Your task to perform on an android device: Open the calendar and show me this week's events? Image 0: 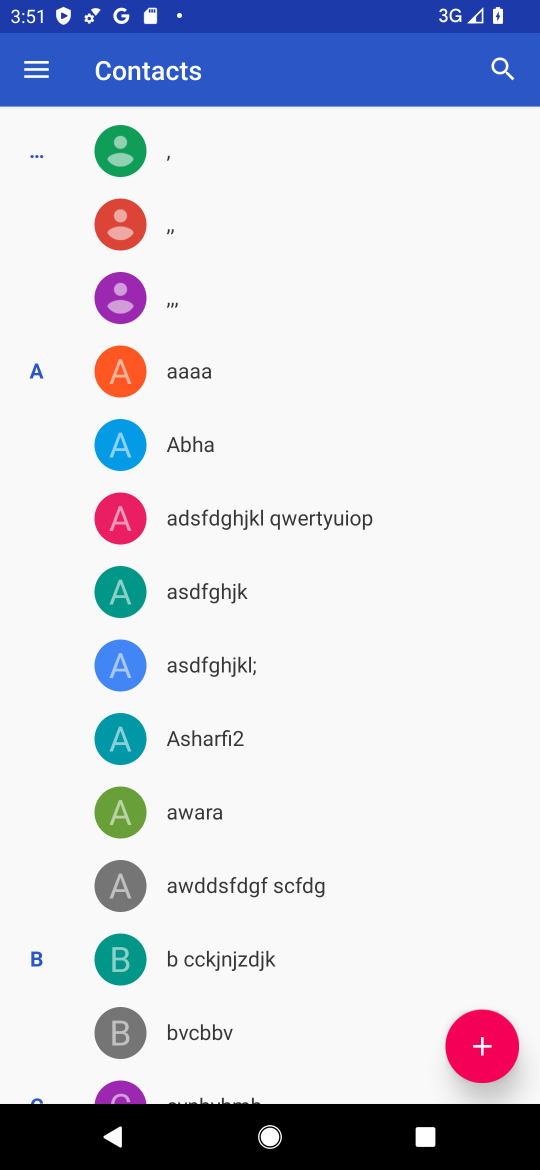
Step 0: press back button
Your task to perform on an android device: Open the calendar and show me this week's events? Image 1: 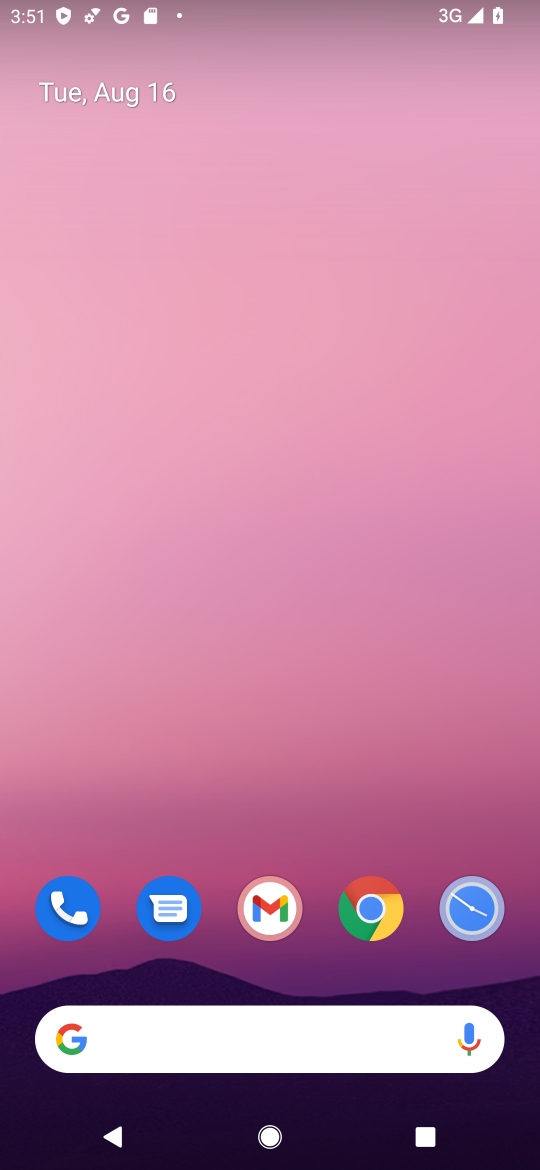
Step 1: drag from (215, 904) to (447, 5)
Your task to perform on an android device: Open the calendar and show me this week's events? Image 2: 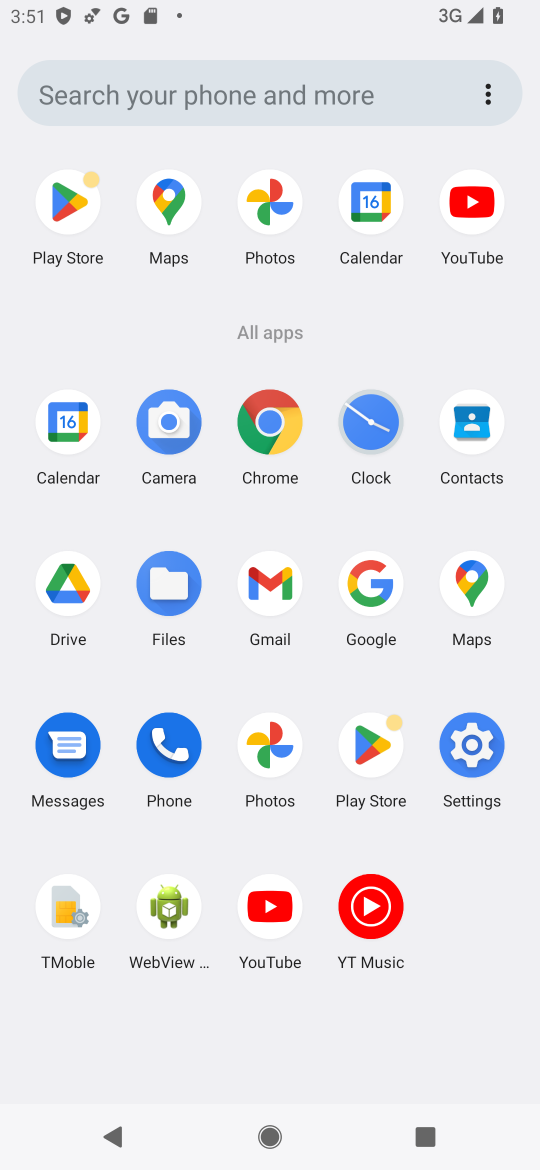
Step 2: click (62, 420)
Your task to perform on an android device: Open the calendar and show me this week's events? Image 3: 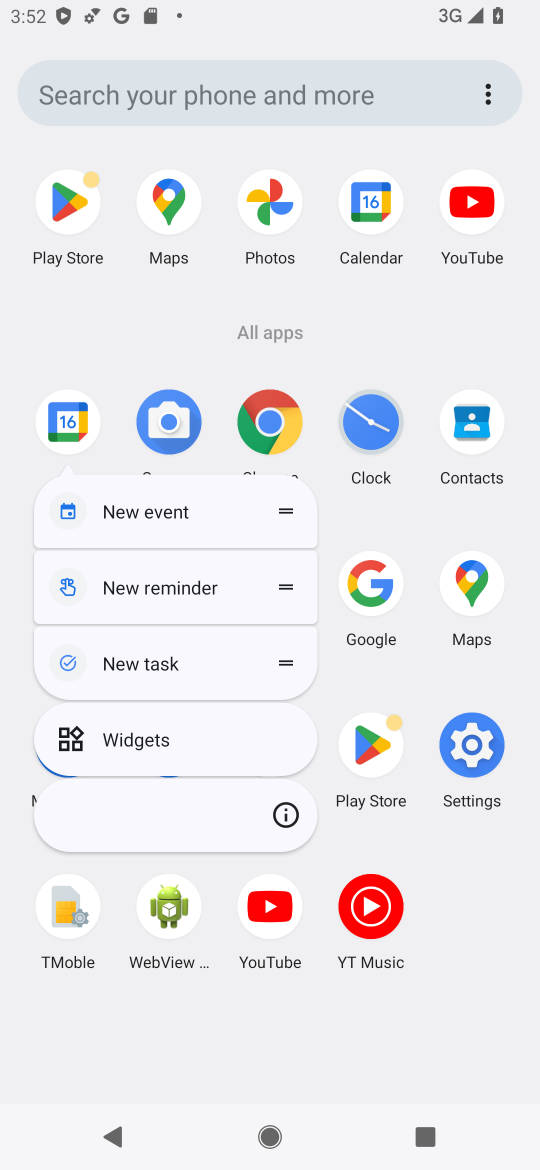
Step 3: click (62, 420)
Your task to perform on an android device: Open the calendar and show me this week's events? Image 4: 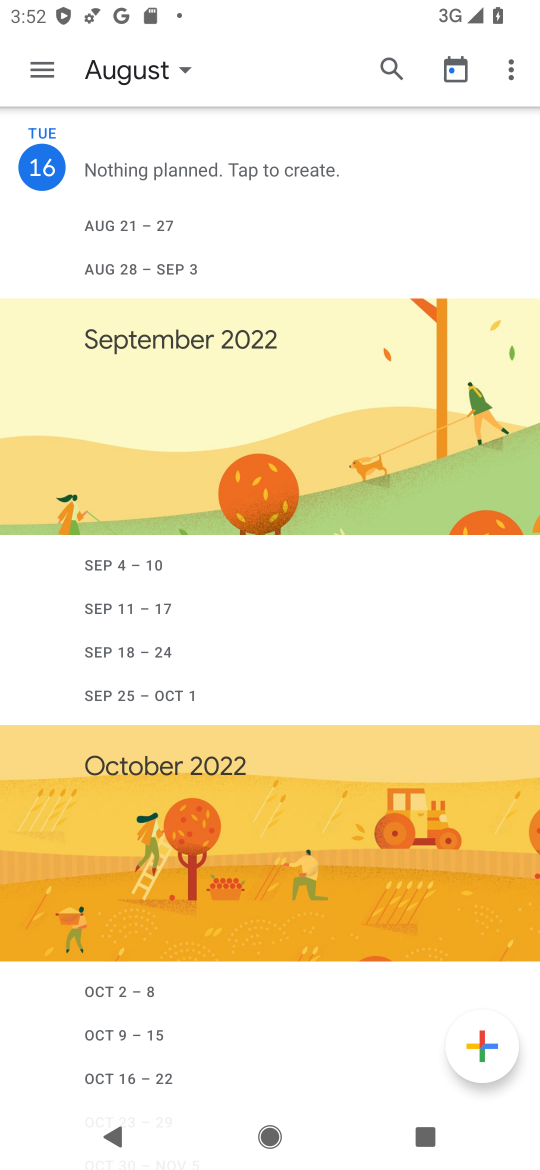
Step 4: task complete